Your task to perform on an android device: Toggle the flashlight Image 0: 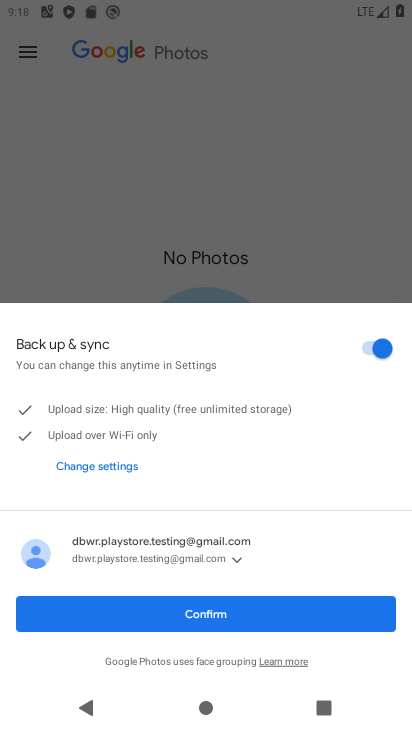
Step 0: press home button
Your task to perform on an android device: Toggle the flashlight Image 1: 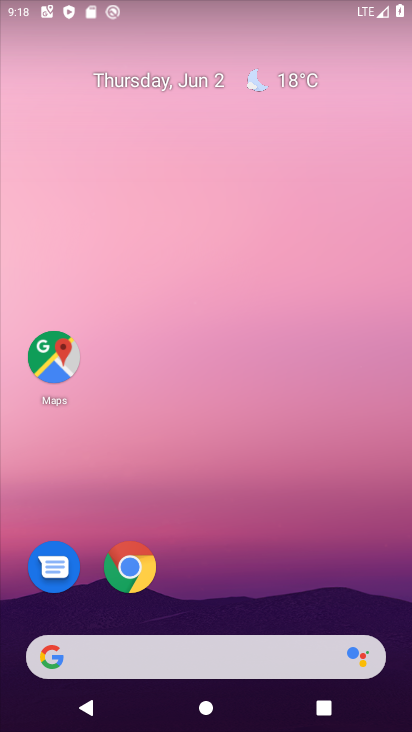
Step 1: drag from (207, 596) to (214, 31)
Your task to perform on an android device: Toggle the flashlight Image 2: 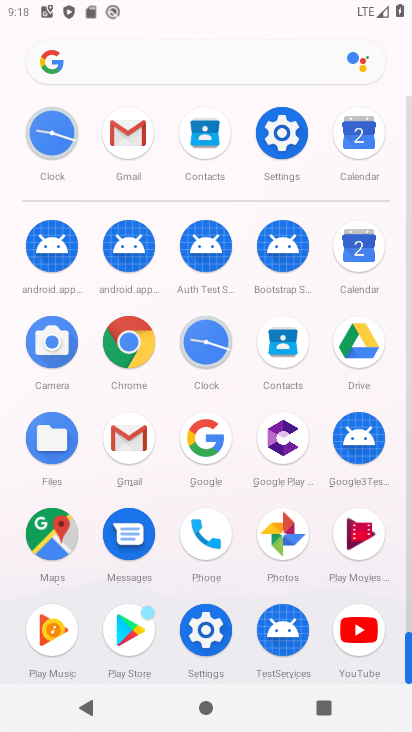
Step 2: click (283, 132)
Your task to perform on an android device: Toggle the flashlight Image 3: 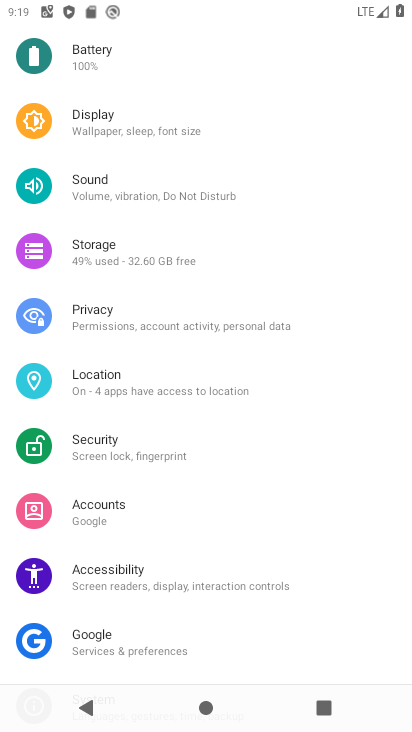
Step 3: drag from (180, 344) to (189, 641)
Your task to perform on an android device: Toggle the flashlight Image 4: 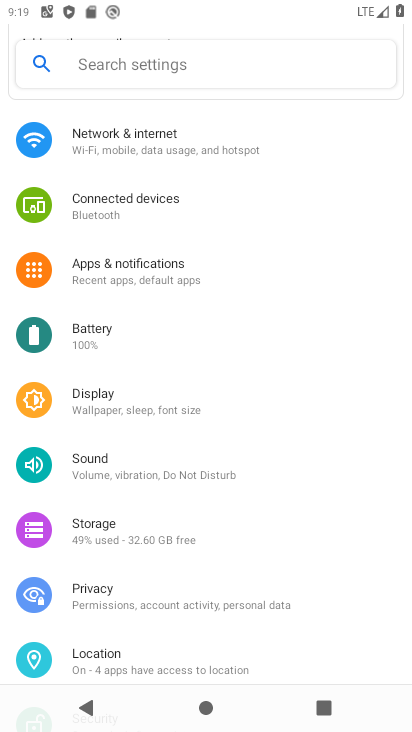
Step 4: drag from (144, 165) to (205, 713)
Your task to perform on an android device: Toggle the flashlight Image 5: 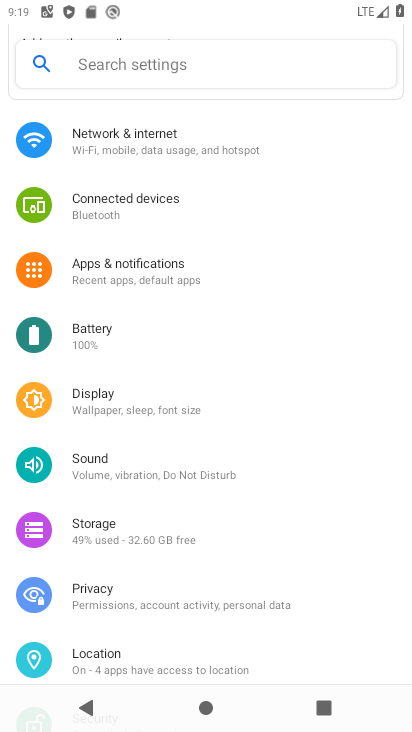
Step 5: drag from (154, 139) to (191, 607)
Your task to perform on an android device: Toggle the flashlight Image 6: 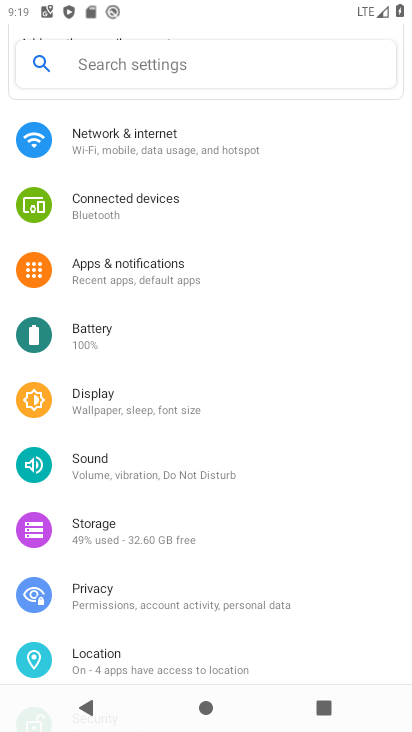
Step 6: drag from (199, 340) to (197, 693)
Your task to perform on an android device: Toggle the flashlight Image 7: 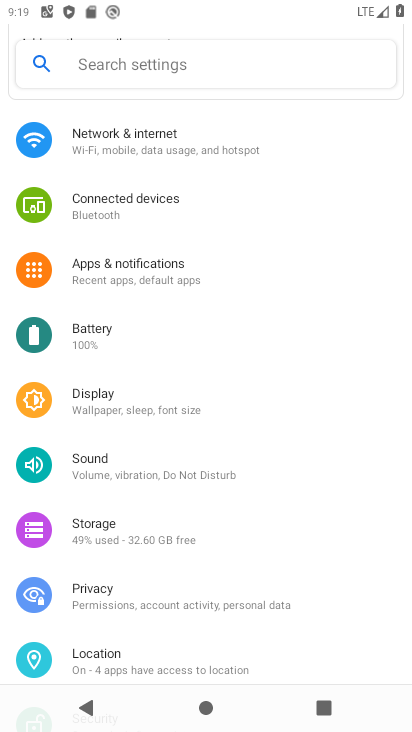
Step 7: click (135, 63)
Your task to perform on an android device: Toggle the flashlight Image 8: 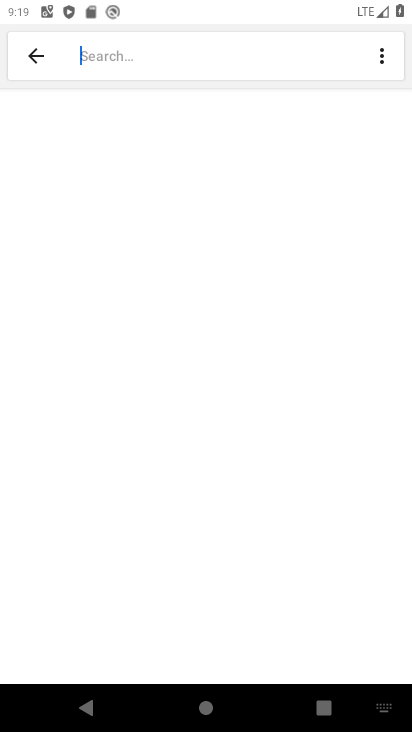
Step 8: type "flashlight"
Your task to perform on an android device: Toggle the flashlight Image 9: 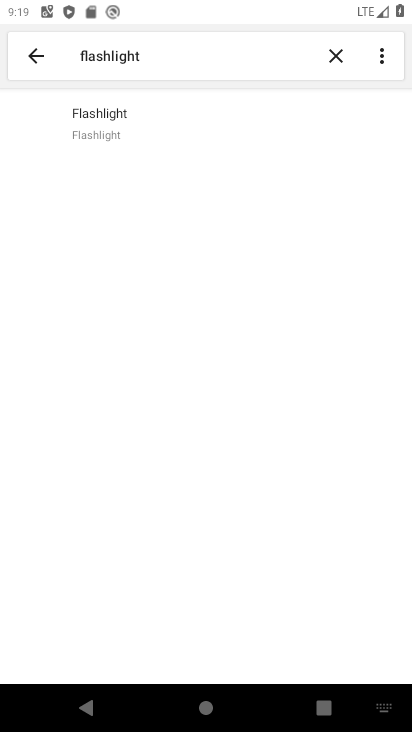
Step 9: click (84, 121)
Your task to perform on an android device: Toggle the flashlight Image 10: 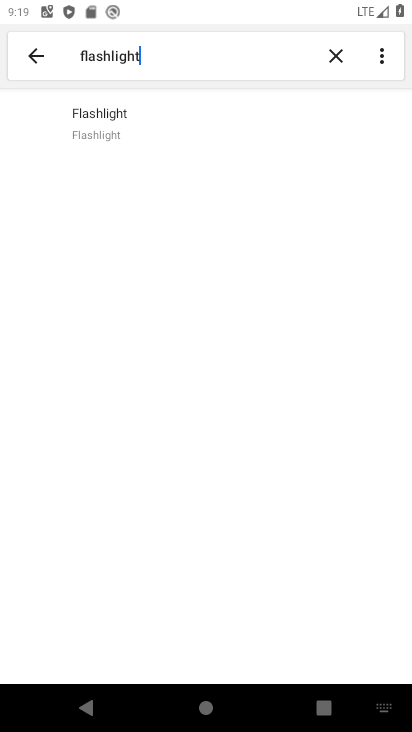
Step 10: click (128, 119)
Your task to perform on an android device: Toggle the flashlight Image 11: 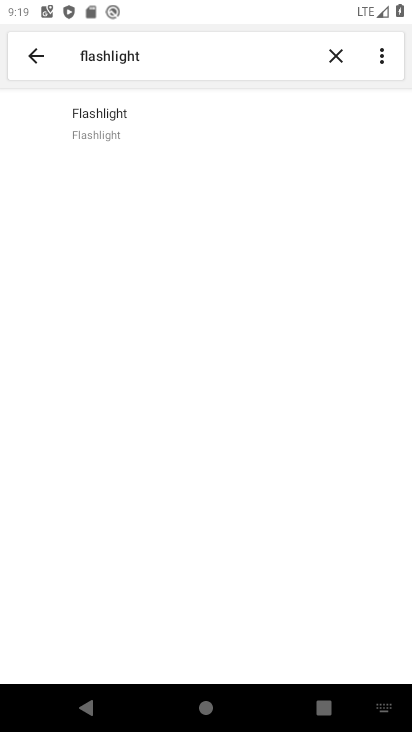
Step 11: task complete